Your task to perform on an android device: check out phone information Image 0: 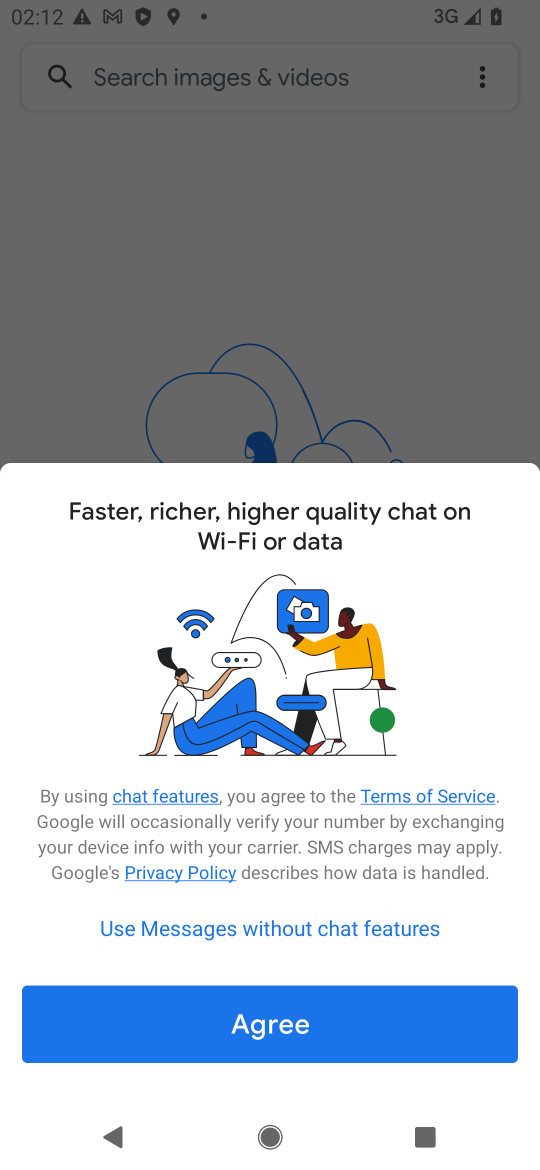
Step 0: press home button
Your task to perform on an android device: check out phone information Image 1: 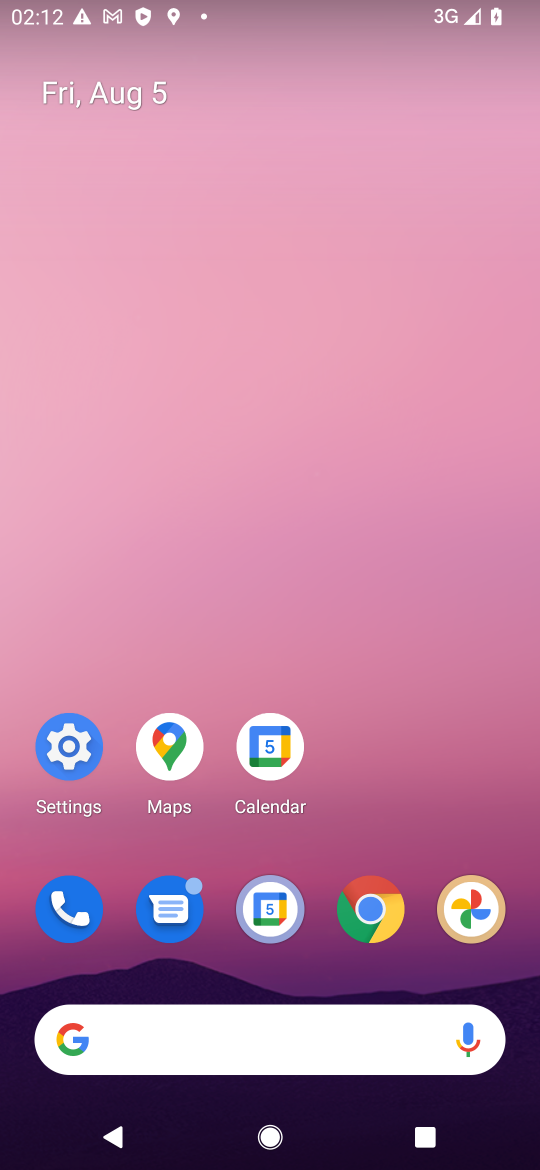
Step 1: click (51, 743)
Your task to perform on an android device: check out phone information Image 2: 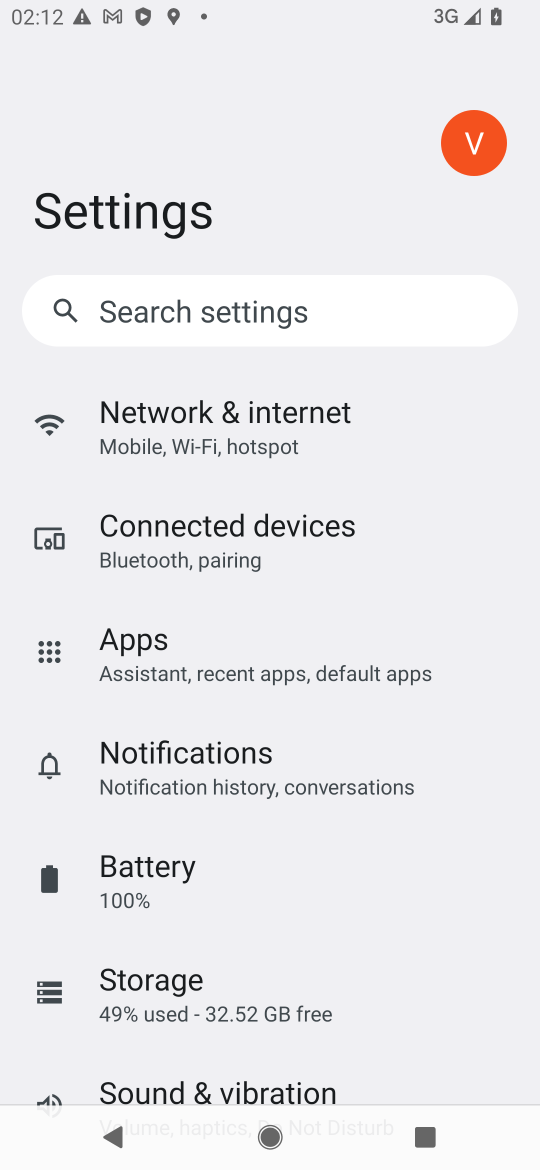
Step 2: drag from (323, 955) to (347, 521)
Your task to perform on an android device: check out phone information Image 3: 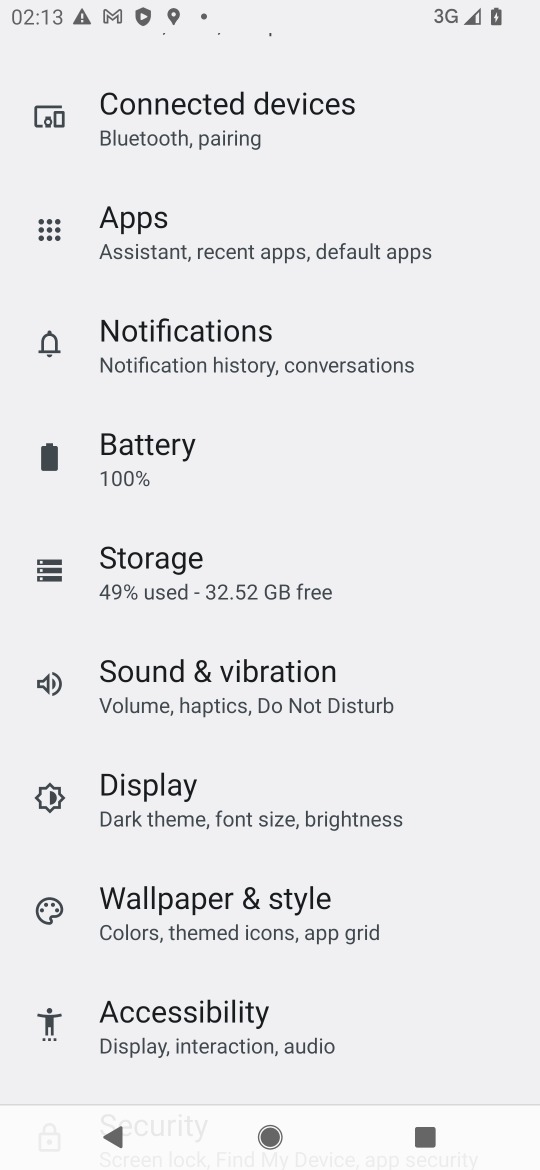
Step 3: drag from (356, 966) to (375, 393)
Your task to perform on an android device: check out phone information Image 4: 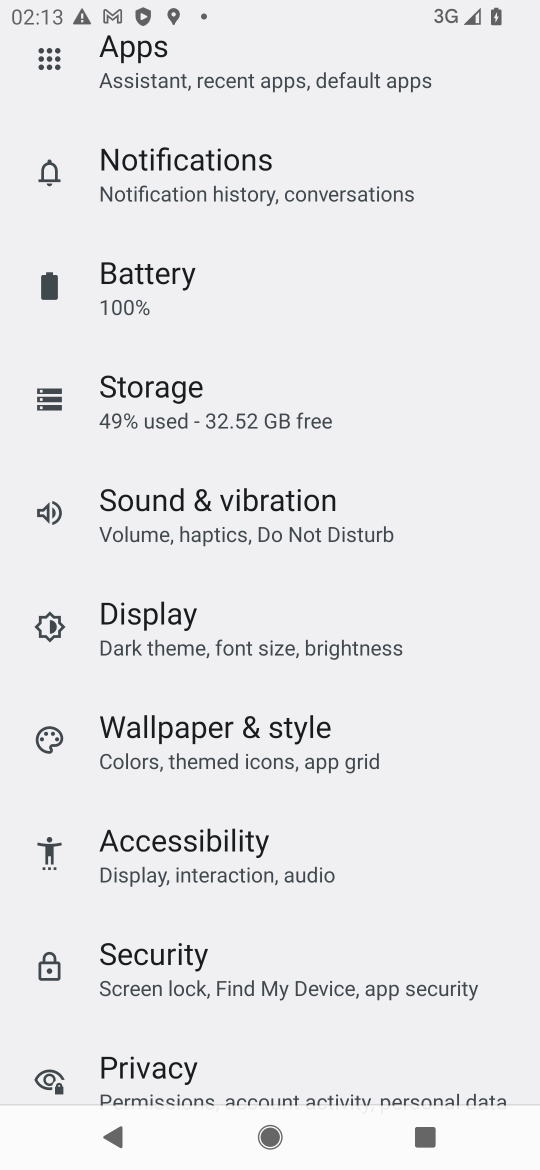
Step 4: drag from (321, 1048) to (320, 342)
Your task to perform on an android device: check out phone information Image 5: 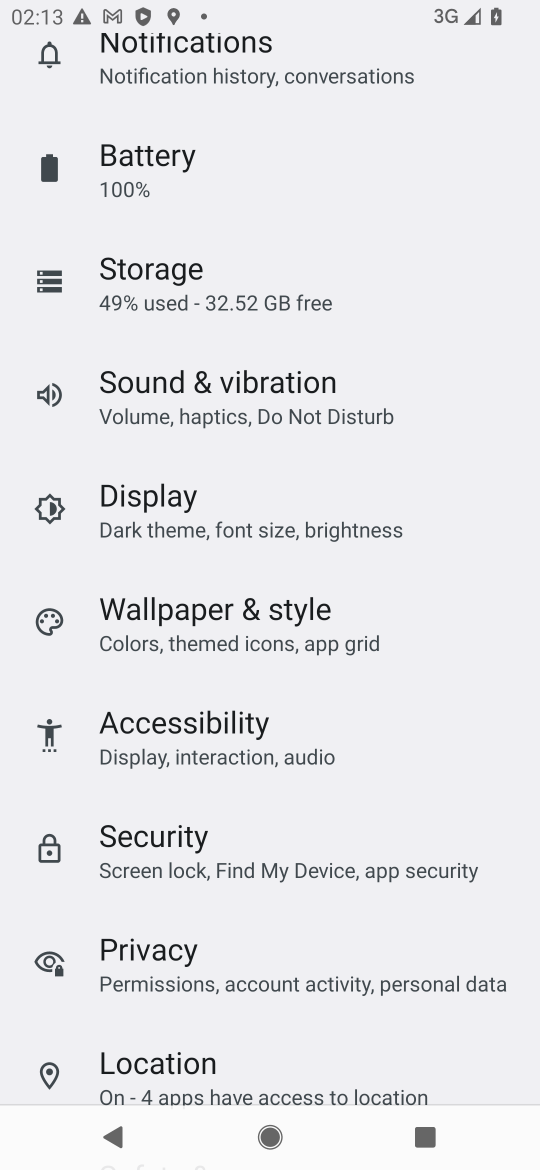
Step 5: drag from (247, 1012) to (274, 397)
Your task to perform on an android device: check out phone information Image 6: 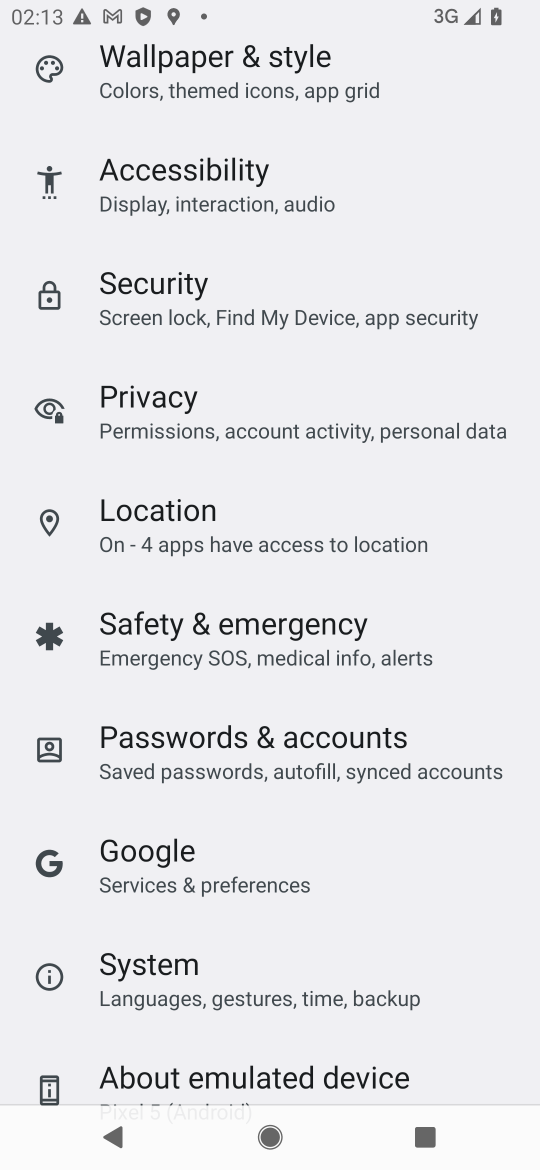
Step 6: drag from (317, 851) to (308, 327)
Your task to perform on an android device: check out phone information Image 7: 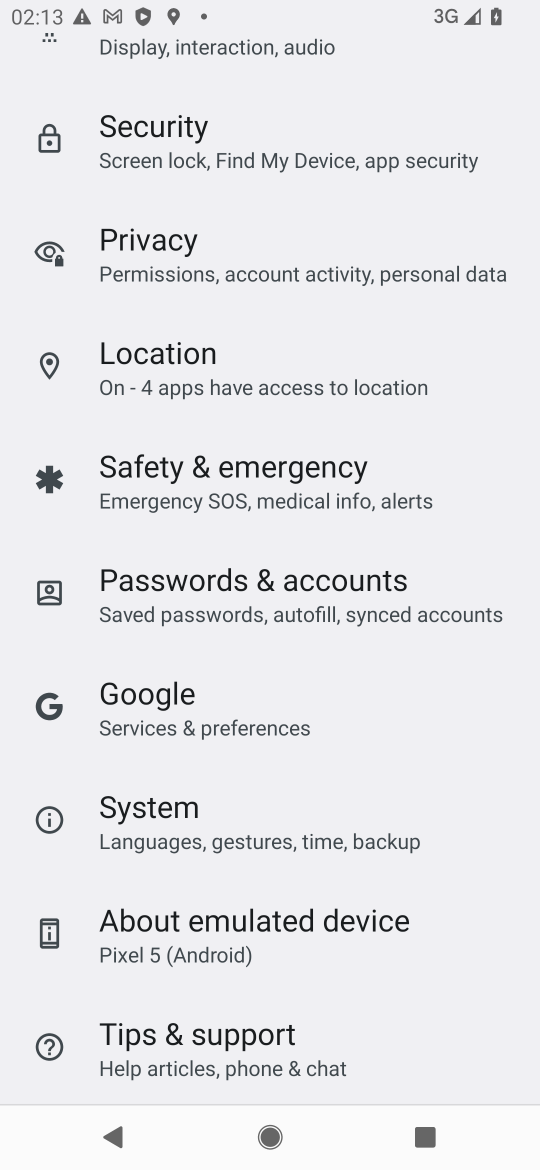
Step 7: click (177, 922)
Your task to perform on an android device: check out phone information Image 8: 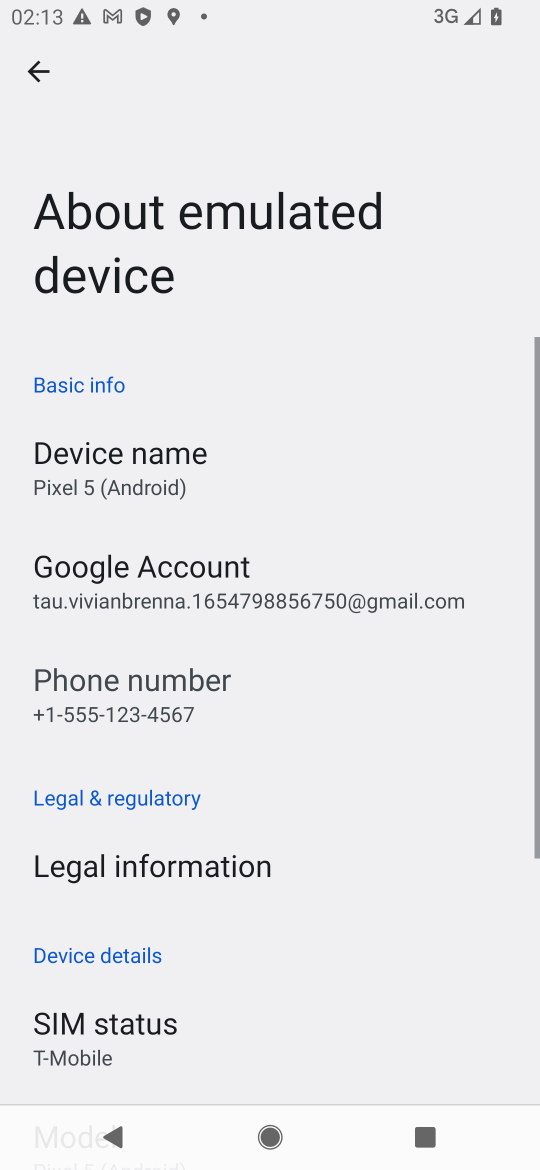
Step 8: task complete